Your task to perform on an android device: Open calendar and show me the fourth week of next month Image 0: 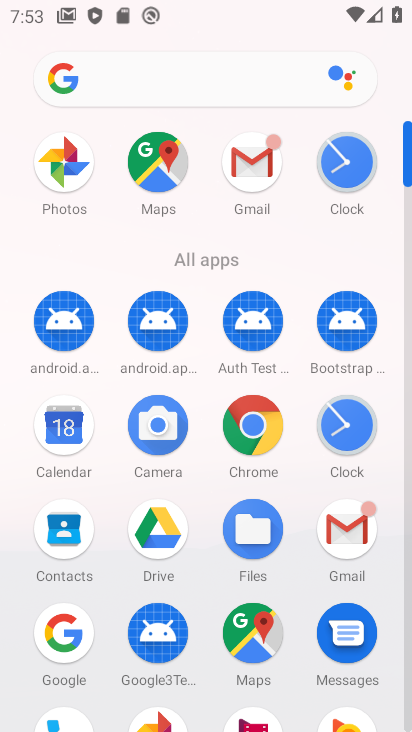
Step 0: click (67, 432)
Your task to perform on an android device: Open calendar and show me the fourth week of next month Image 1: 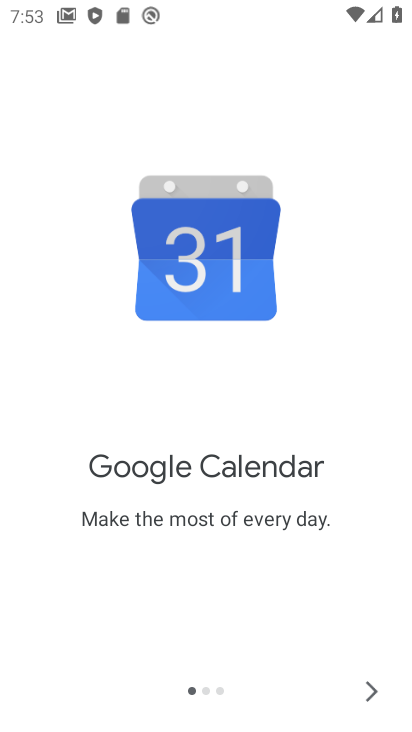
Step 1: click (365, 685)
Your task to perform on an android device: Open calendar and show me the fourth week of next month Image 2: 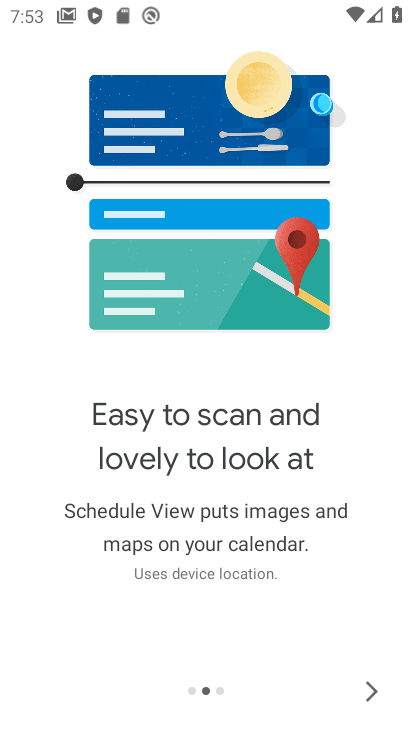
Step 2: click (365, 686)
Your task to perform on an android device: Open calendar and show me the fourth week of next month Image 3: 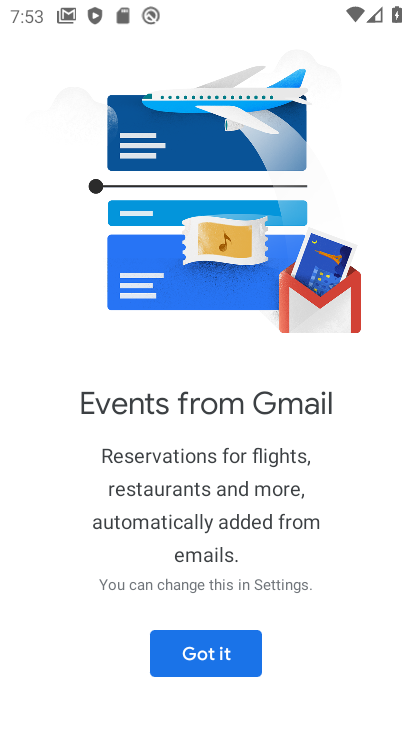
Step 3: click (226, 652)
Your task to perform on an android device: Open calendar and show me the fourth week of next month Image 4: 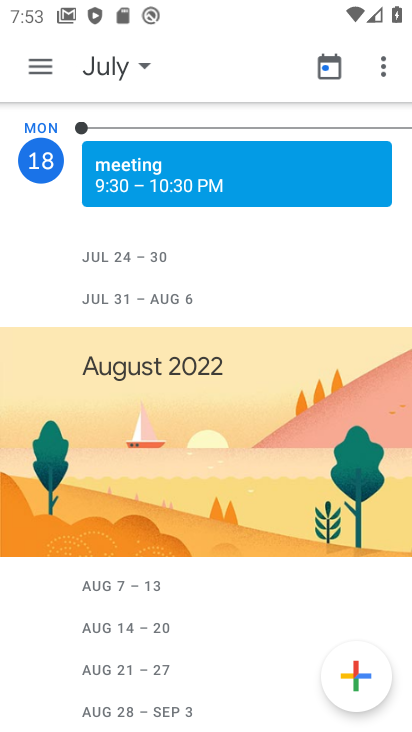
Step 4: click (110, 64)
Your task to perform on an android device: Open calendar and show me the fourth week of next month Image 5: 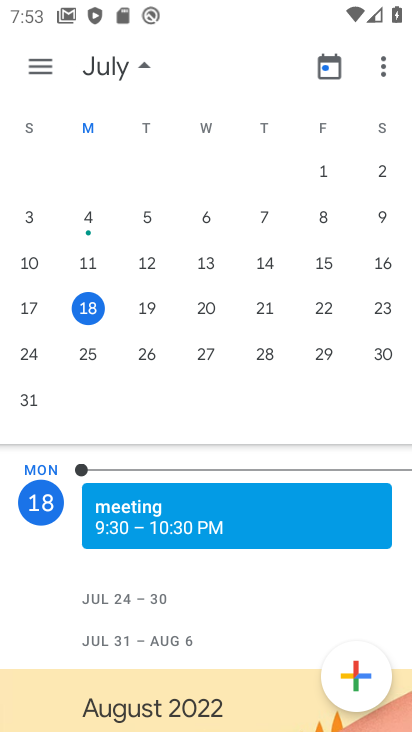
Step 5: drag from (350, 279) to (42, 305)
Your task to perform on an android device: Open calendar and show me the fourth week of next month Image 6: 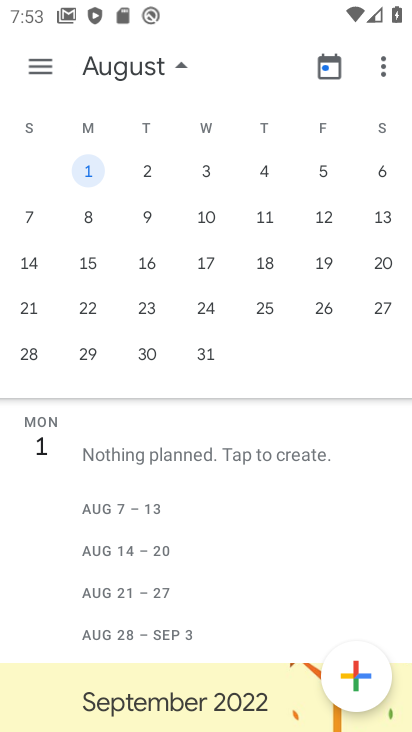
Step 6: click (33, 308)
Your task to perform on an android device: Open calendar and show me the fourth week of next month Image 7: 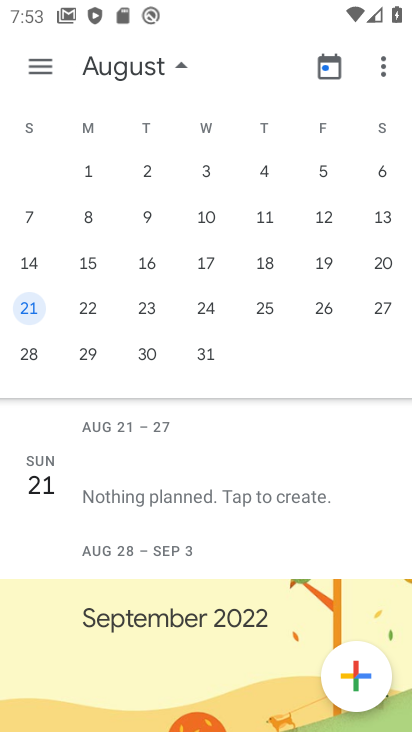
Step 7: click (40, 60)
Your task to perform on an android device: Open calendar and show me the fourth week of next month Image 8: 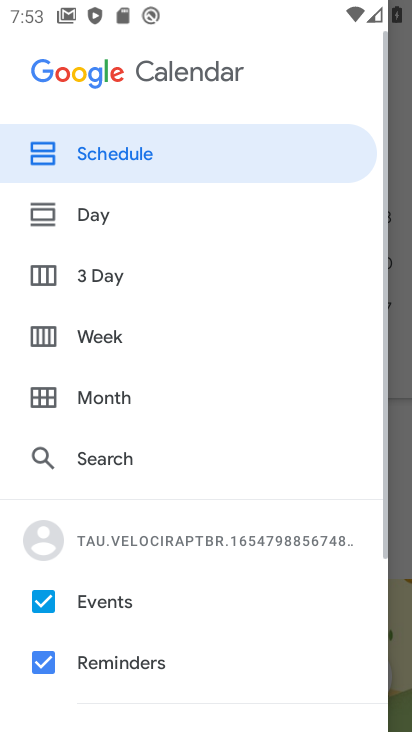
Step 8: click (125, 333)
Your task to perform on an android device: Open calendar and show me the fourth week of next month Image 9: 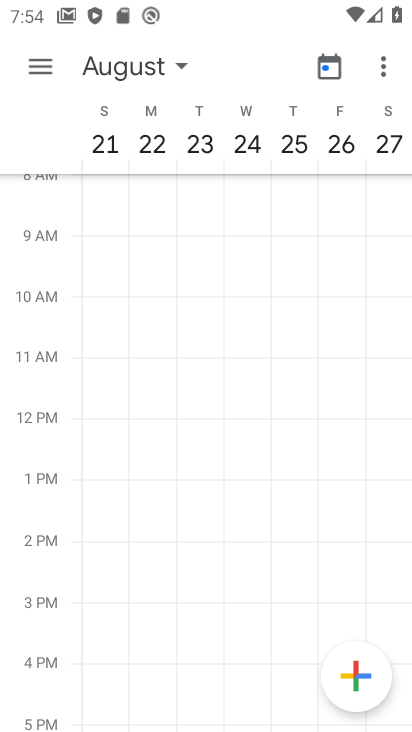
Step 9: task complete